Your task to perform on an android device: refresh tabs in the chrome app Image 0: 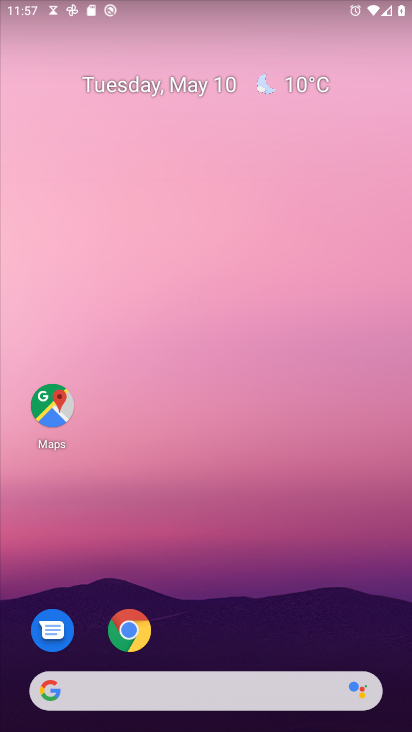
Step 0: press home button
Your task to perform on an android device: refresh tabs in the chrome app Image 1: 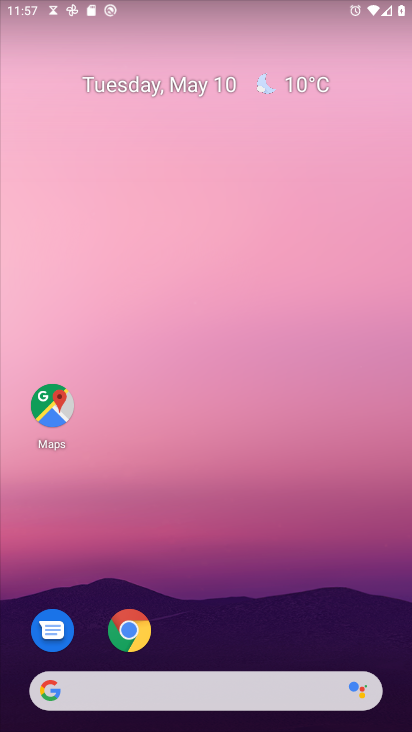
Step 1: click (126, 629)
Your task to perform on an android device: refresh tabs in the chrome app Image 2: 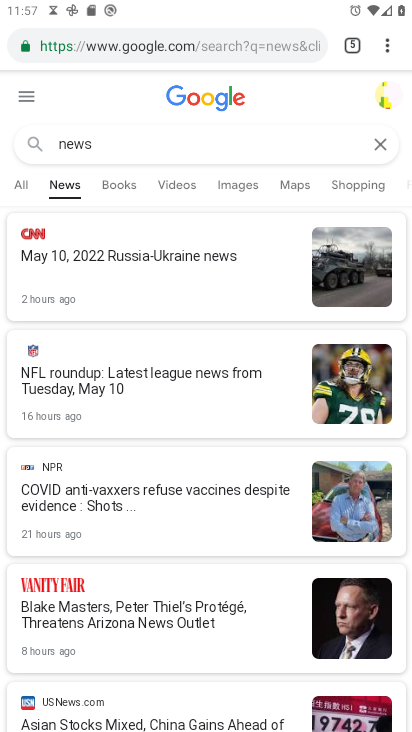
Step 2: click (383, 43)
Your task to perform on an android device: refresh tabs in the chrome app Image 3: 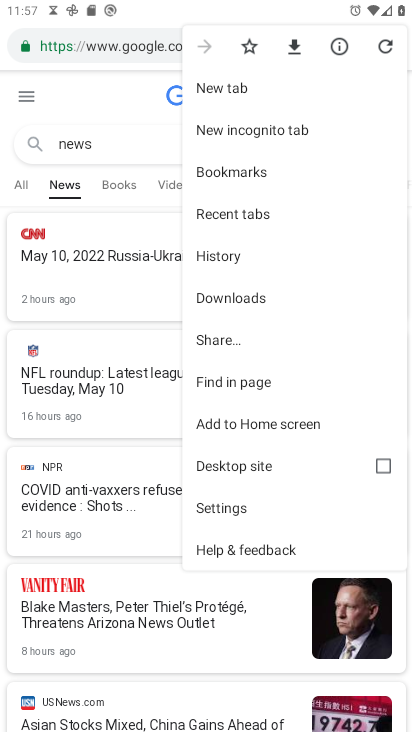
Step 3: click (384, 45)
Your task to perform on an android device: refresh tabs in the chrome app Image 4: 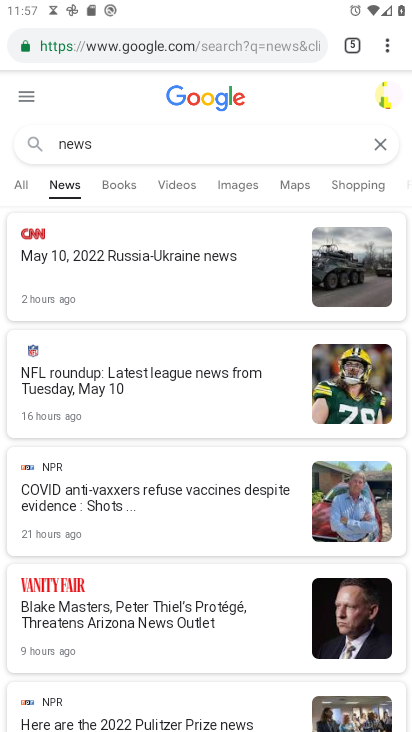
Step 4: task complete